Your task to perform on an android device: Open Amazon Image 0: 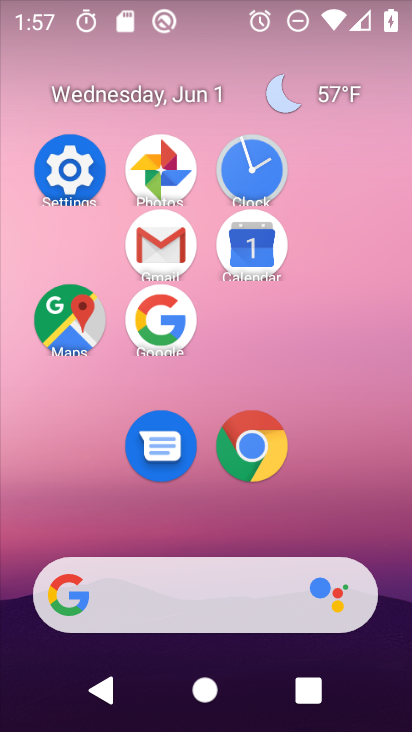
Step 0: click (251, 449)
Your task to perform on an android device: Open Amazon Image 1: 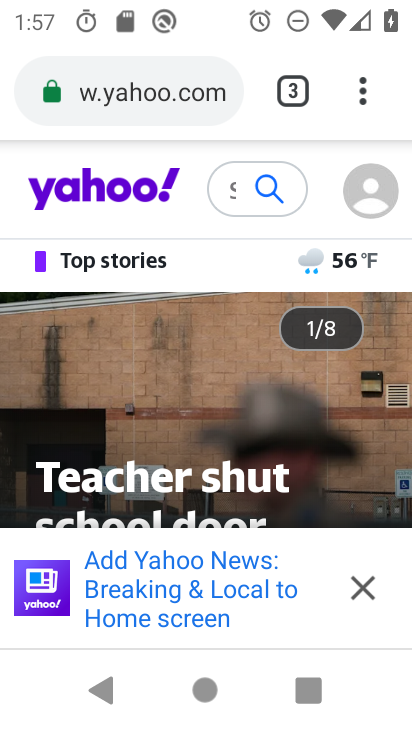
Step 1: click (296, 86)
Your task to perform on an android device: Open Amazon Image 2: 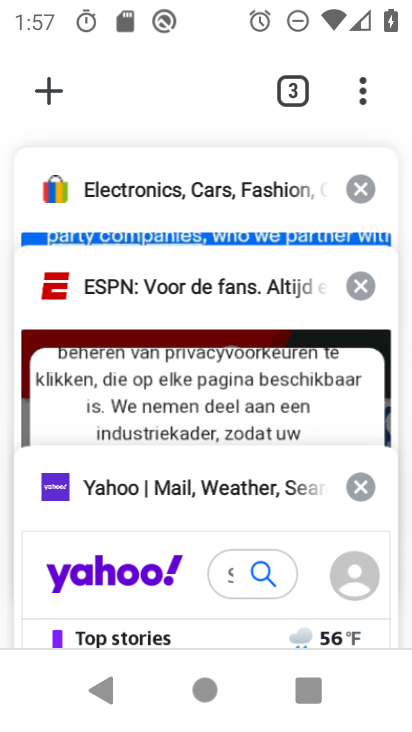
Step 2: click (63, 85)
Your task to perform on an android device: Open Amazon Image 3: 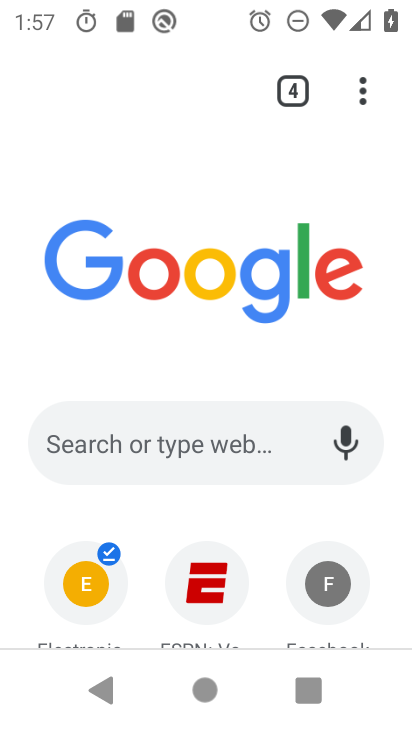
Step 3: drag from (257, 537) to (241, 65)
Your task to perform on an android device: Open Amazon Image 4: 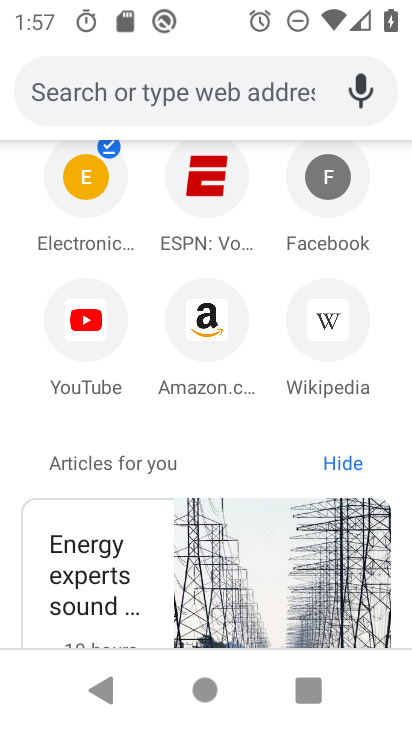
Step 4: click (215, 321)
Your task to perform on an android device: Open Amazon Image 5: 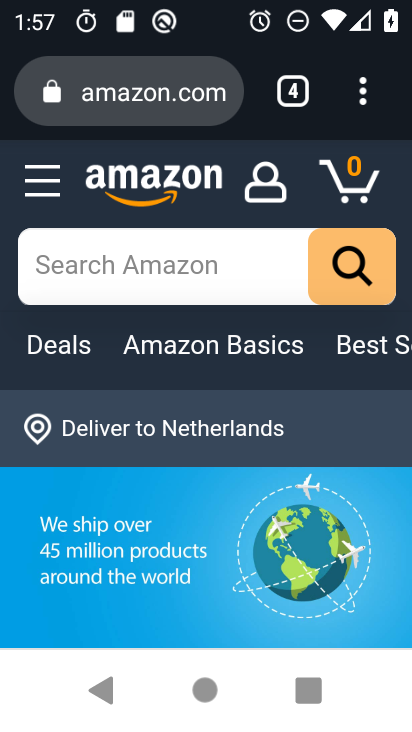
Step 5: task complete